Your task to perform on an android device: Search for energizer triple a on costco.com, select the first entry, add it to the cart, then select checkout. Image 0: 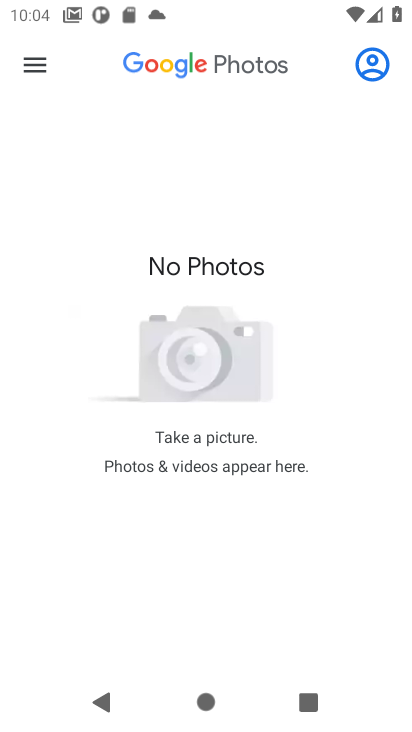
Step 0: press home button
Your task to perform on an android device: Search for energizer triple a on costco.com, select the first entry, add it to the cart, then select checkout. Image 1: 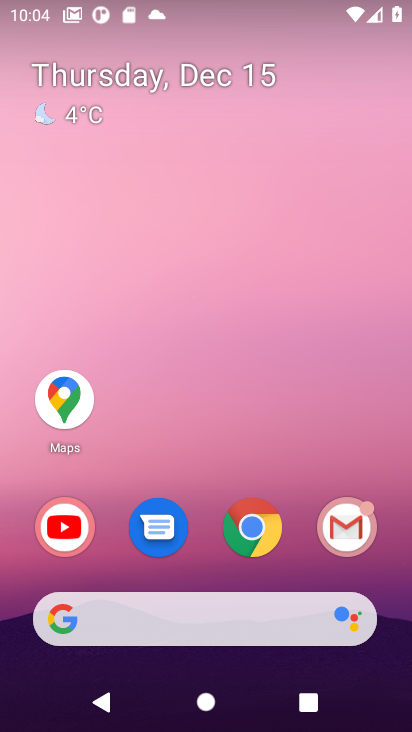
Step 1: click (237, 542)
Your task to perform on an android device: Search for energizer triple a on costco.com, select the first entry, add it to the cart, then select checkout. Image 2: 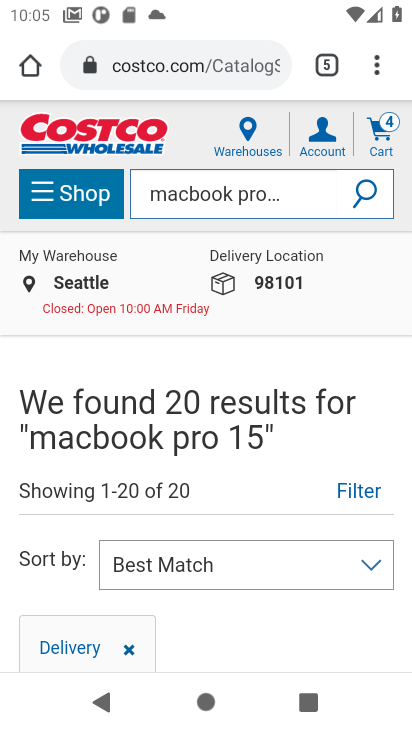
Step 2: click (256, 196)
Your task to perform on an android device: Search for energizer triple a on costco.com, select the first entry, add it to the cart, then select checkout. Image 3: 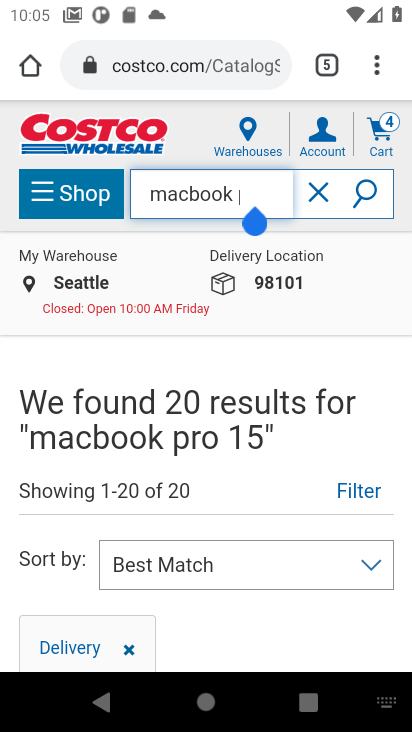
Step 3: click (319, 195)
Your task to perform on an android device: Search for energizer triple a on costco.com, select the first entry, add it to the cart, then select checkout. Image 4: 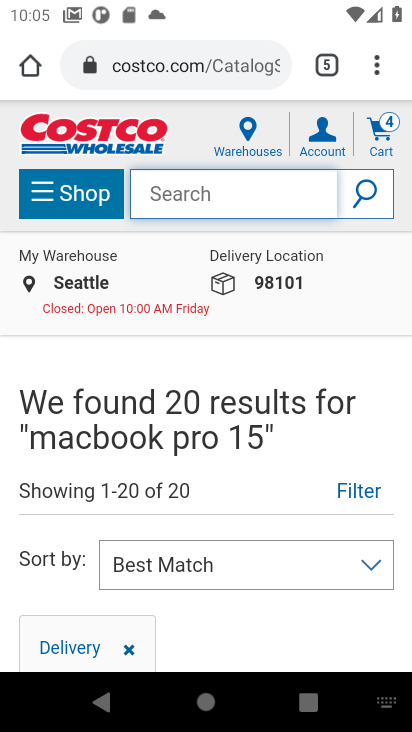
Step 4: type "energizer triple a"
Your task to perform on an android device: Search for energizer triple a on costco.com, select the first entry, add it to the cart, then select checkout. Image 5: 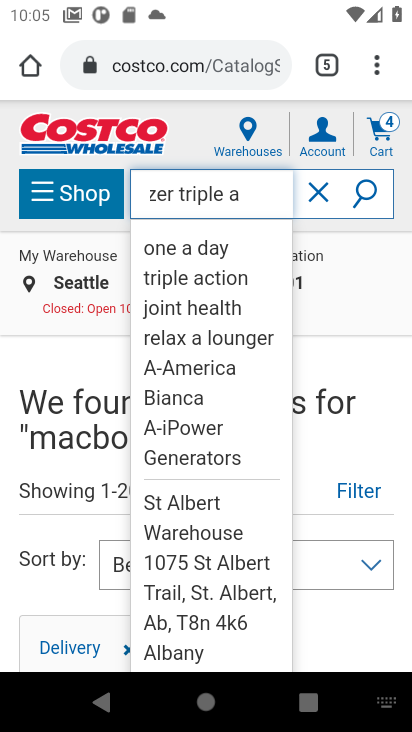
Step 5: click (367, 201)
Your task to perform on an android device: Search for energizer triple a on costco.com, select the first entry, add it to the cart, then select checkout. Image 6: 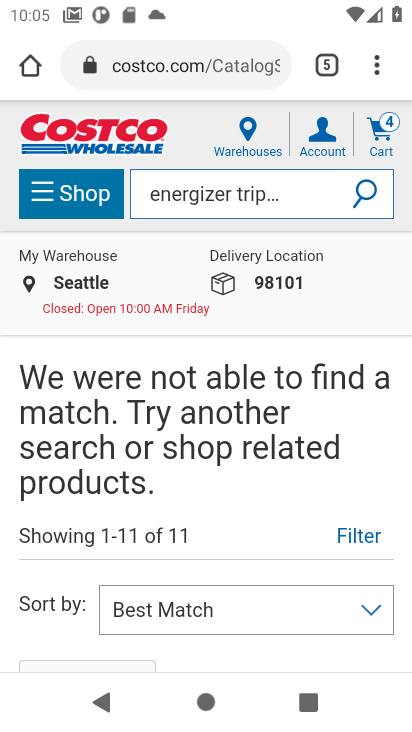
Step 6: task complete